Your task to perform on an android device: Open Android settings Image 0: 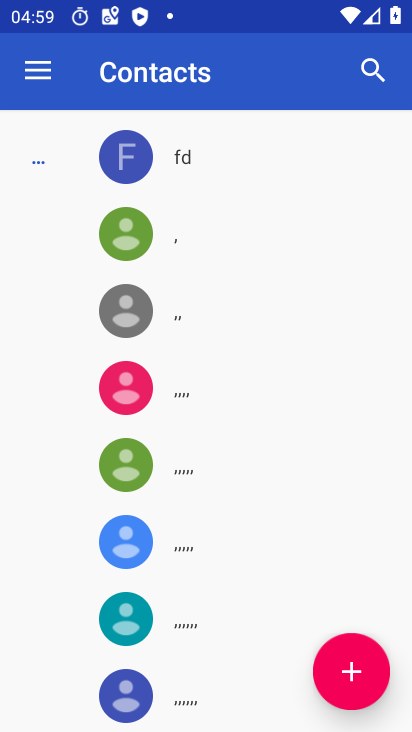
Step 0: press home button
Your task to perform on an android device: Open Android settings Image 1: 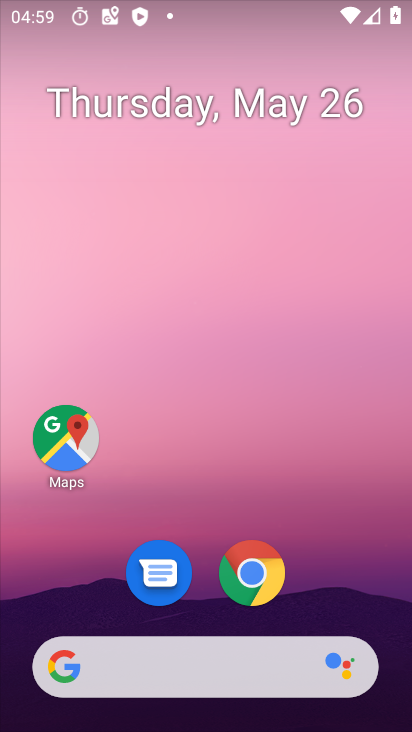
Step 1: drag from (303, 597) to (251, 241)
Your task to perform on an android device: Open Android settings Image 2: 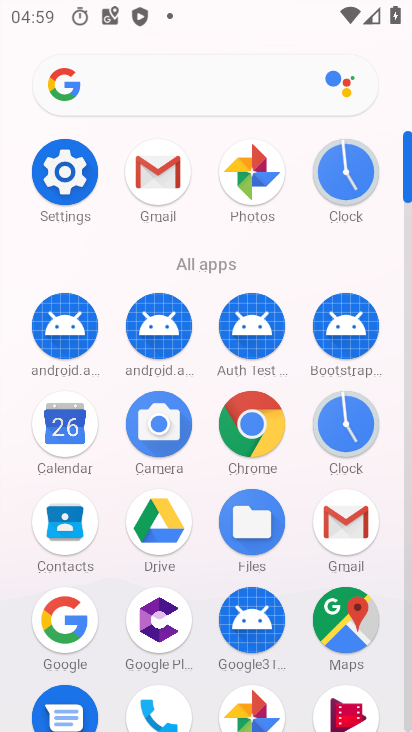
Step 2: click (41, 182)
Your task to perform on an android device: Open Android settings Image 3: 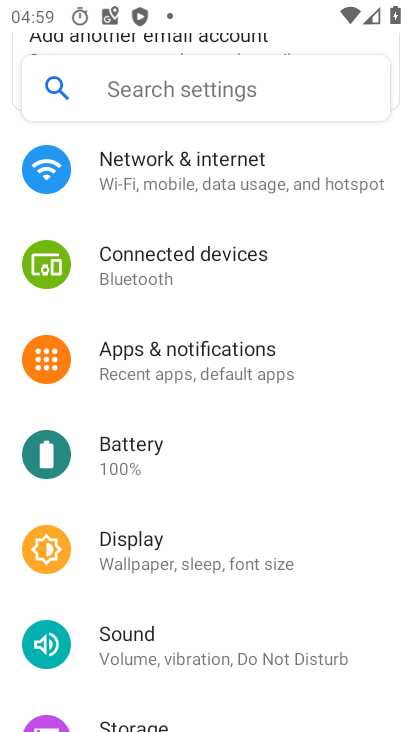
Step 3: drag from (273, 601) to (258, 45)
Your task to perform on an android device: Open Android settings Image 4: 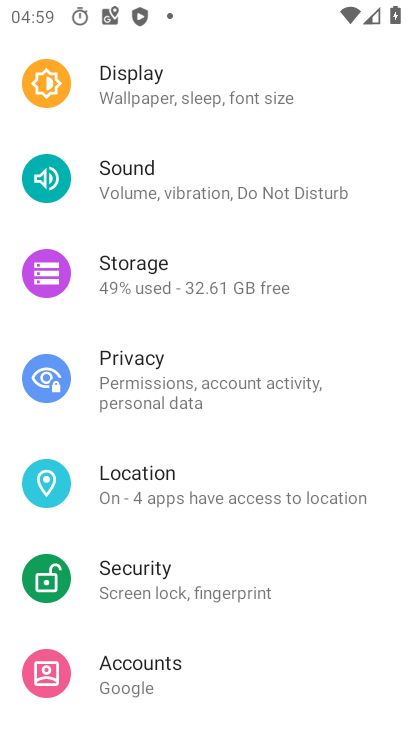
Step 4: drag from (241, 661) to (130, 182)
Your task to perform on an android device: Open Android settings Image 5: 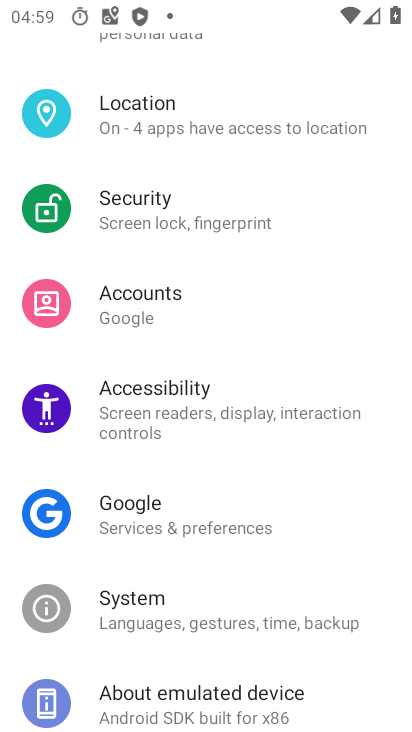
Step 5: click (196, 699)
Your task to perform on an android device: Open Android settings Image 6: 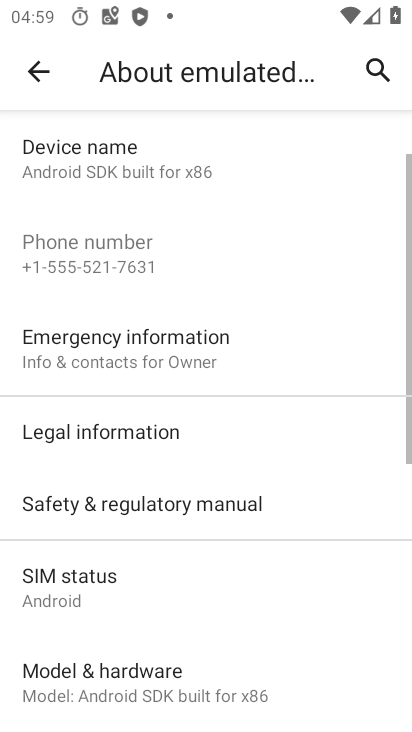
Step 6: drag from (118, 604) to (118, 237)
Your task to perform on an android device: Open Android settings Image 7: 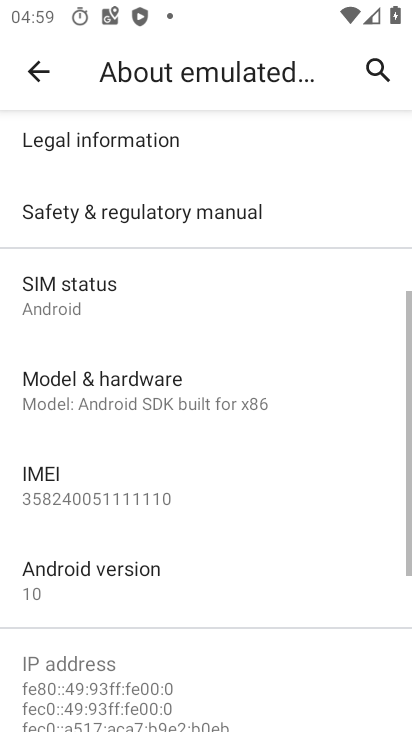
Step 7: click (68, 594)
Your task to perform on an android device: Open Android settings Image 8: 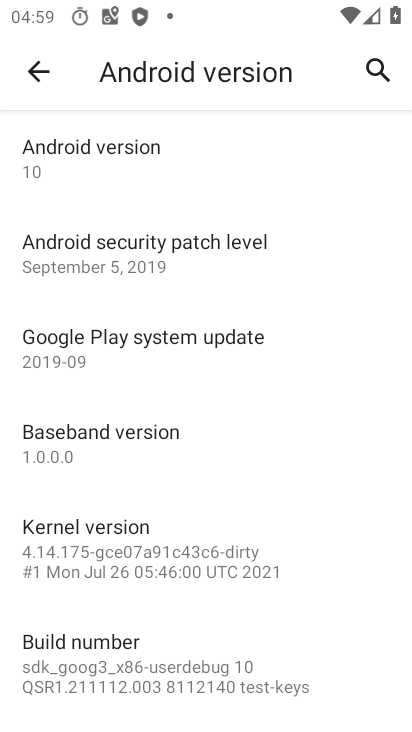
Step 8: task complete